Your task to perform on an android device: read, delete, or share a saved page in the chrome app Image 0: 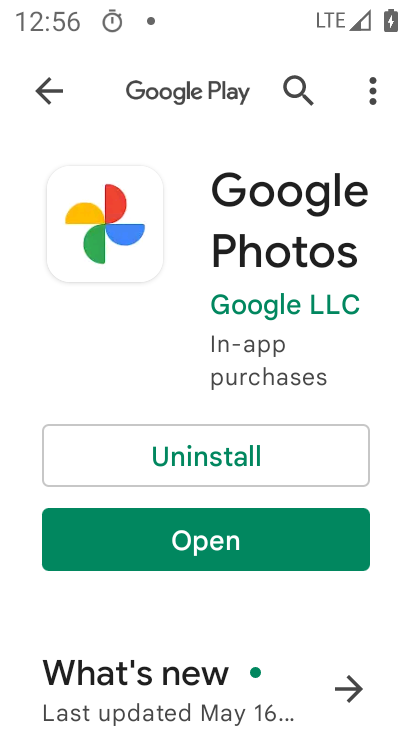
Step 0: press home button
Your task to perform on an android device: read, delete, or share a saved page in the chrome app Image 1: 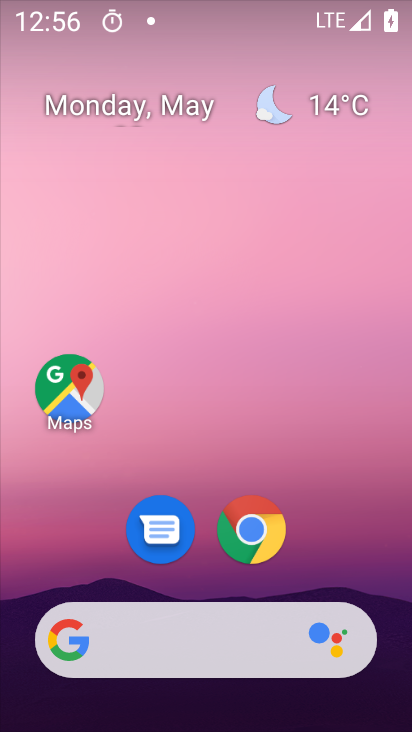
Step 1: drag from (373, 586) to (375, 197)
Your task to perform on an android device: read, delete, or share a saved page in the chrome app Image 2: 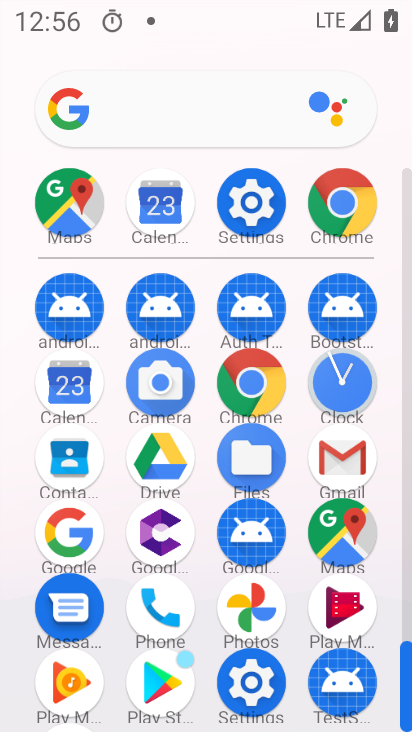
Step 2: click (352, 191)
Your task to perform on an android device: read, delete, or share a saved page in the chrome app Image 3: 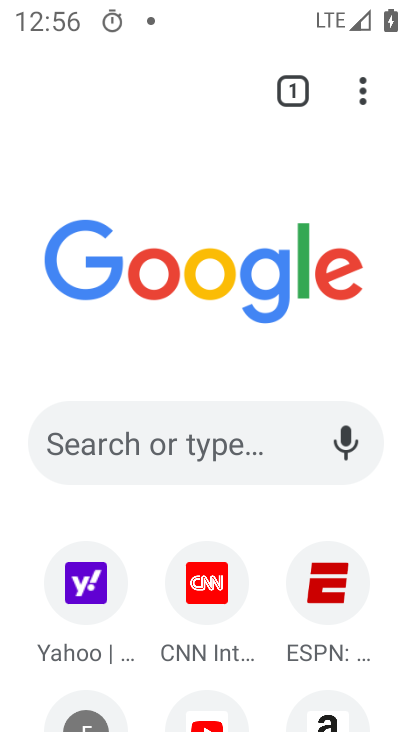
Step 3: click (361, 104)
Your task to perform on an android device: read, delete, or share a saved page in the chrome app Image 4: 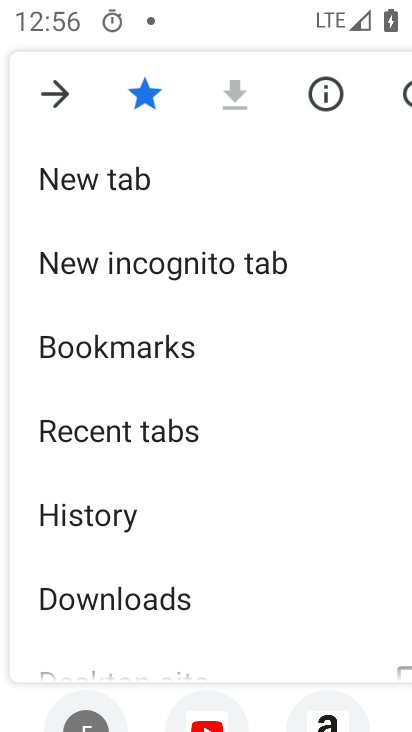
Step 4: drag from (339, 493) to (344, 410)
Your task to perform on an android device: read, delete, or share a saved page in the chrome app Image 5: 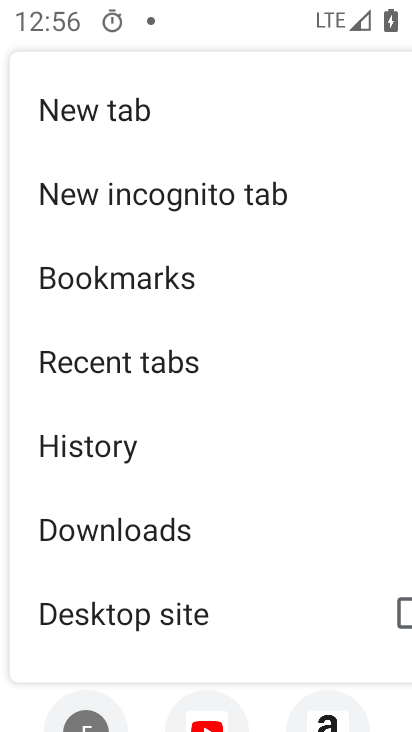
Step 5: drag from (346, 556) to (340, 395)
Your task to perform on an android device: read, delete, or share a saved page in the chrome app Image 6: 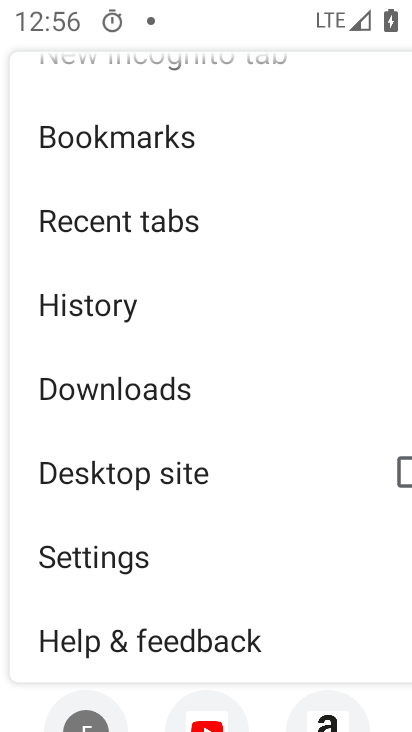
Step 6: drag from (308, 563) to (310, 424)
Your task to perform on an android device: read, delete, or share a saved page in the chrome app Image 7: 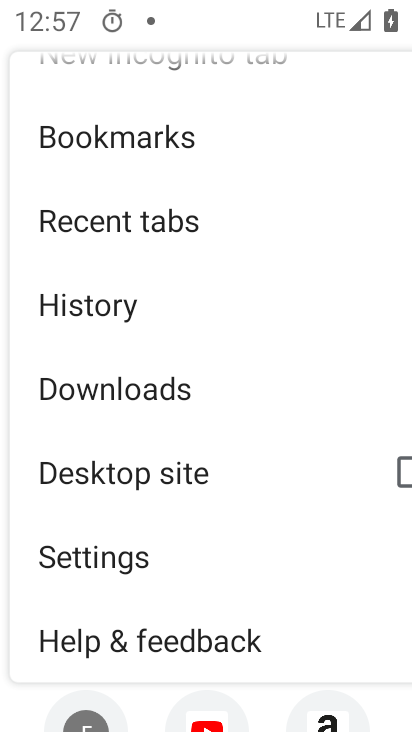
Step 7: click (170, 389)
Your task to perform on an android device: read, delete, or share a saved page in the chrome app Image 8: 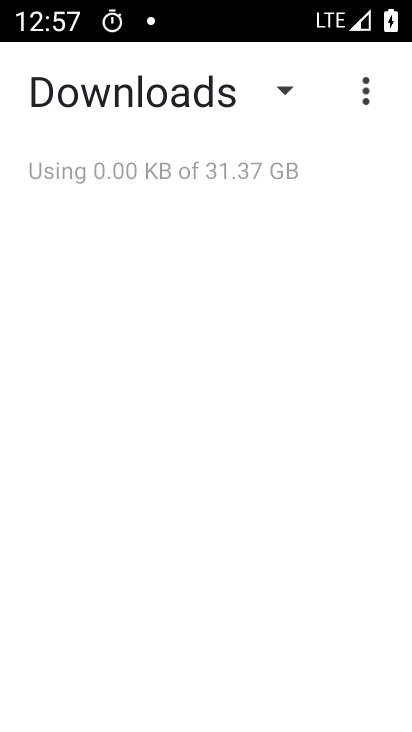
Step 8: click (285, 88)
Your task to perform on an android device: read, delete, or share a saved page in the chrome app Image 9: 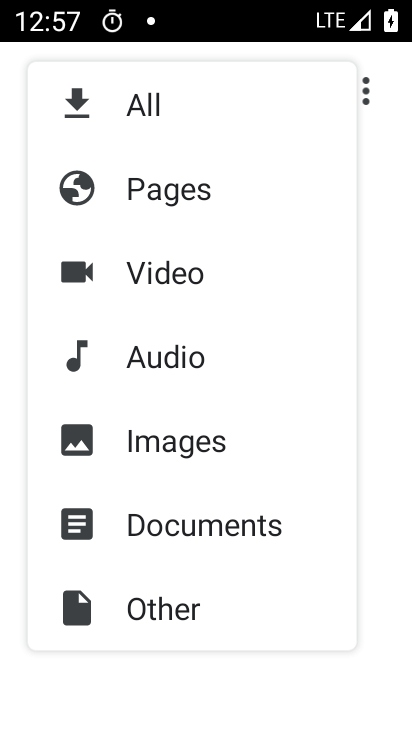
Step 9: click (225, 217)
Your task to perform on an android device: read, delete, or share a saved page in the chrome app Image 10: 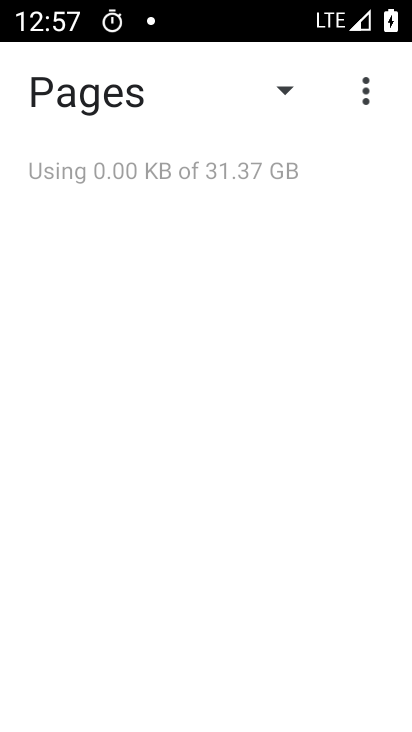
Step 10: task complete